Your task to perform on an android device: turn off sleep mode Image 0: 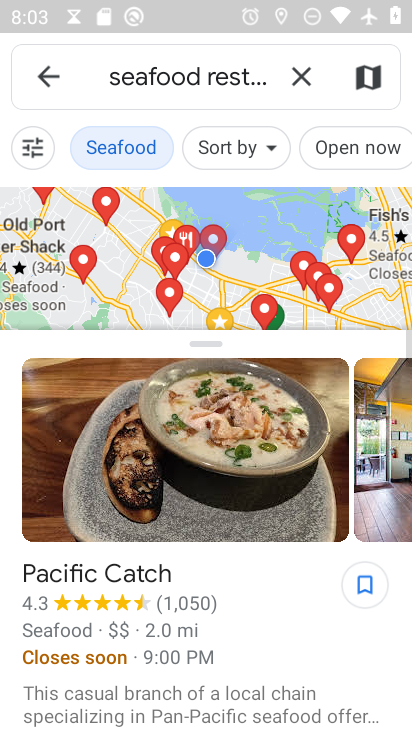
Step 0: press home button
Your task to perform on an android device: turn off sleep mode Image 1: 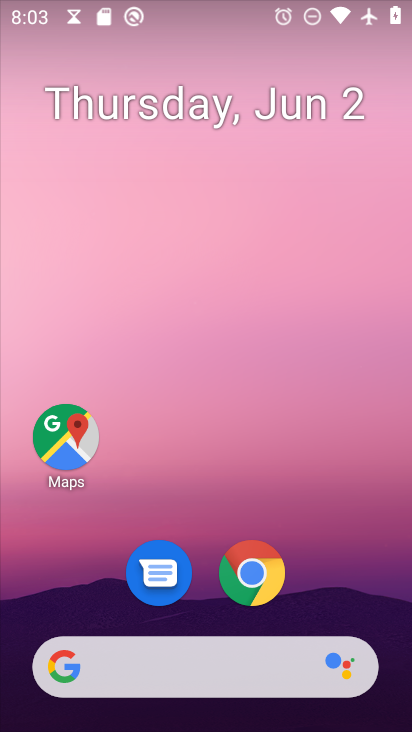
Step 1: drag from (192, 680) to (263, 79)
Your task to perform on an android device: turn off sleep mode Image 2: 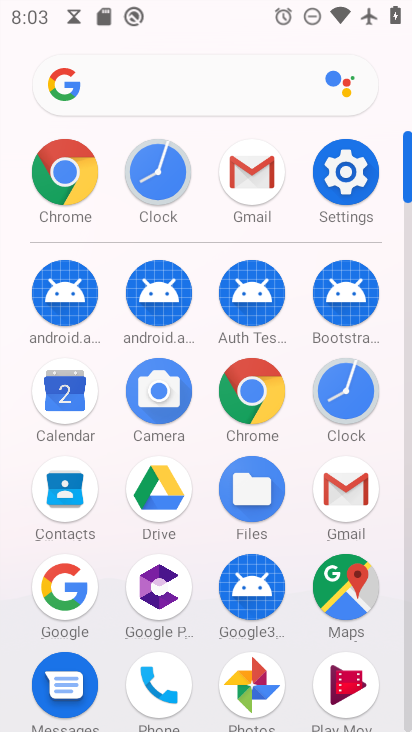
Step 2: click (351, 164)
Your task to perform on an android device: turn off sleep mode Image 3: 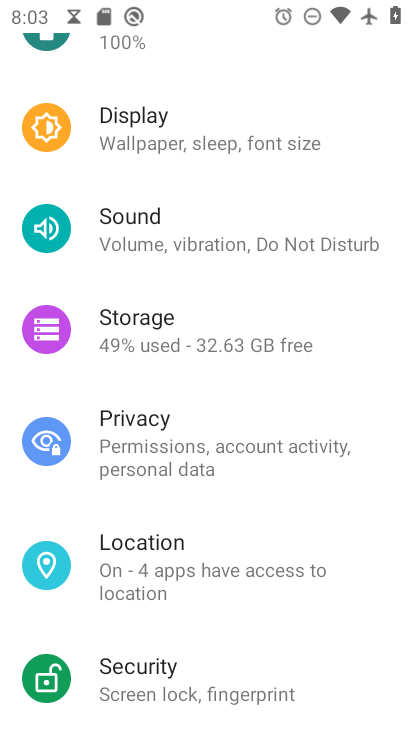
Step 3: click (228, 152)
Your task to perform on an android device: turn off sleep mode Image 4: 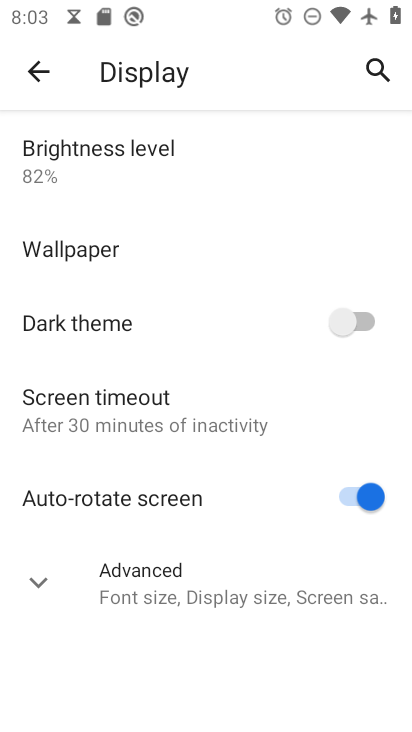
Step 4: task complete